Your task to perform on an android device: change the clock display to show seconds Image 0: 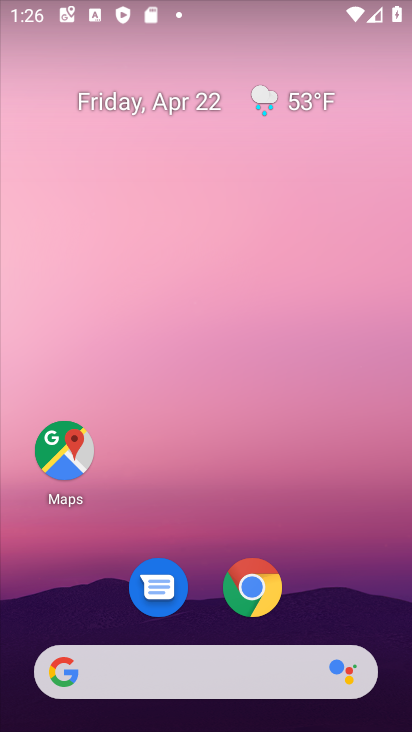
Step 0: drag from (191, 620) to (197, 257)
Your task to perform on an android device: change the clock display to show seconds Image 1: 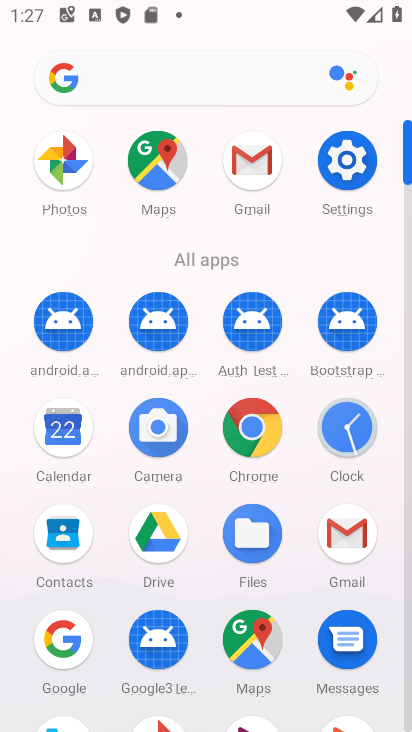
Step 1: drag from (293, 633) to (300, 349)
Your task to perform on an android device: change the clock display to show seconds Image 2: 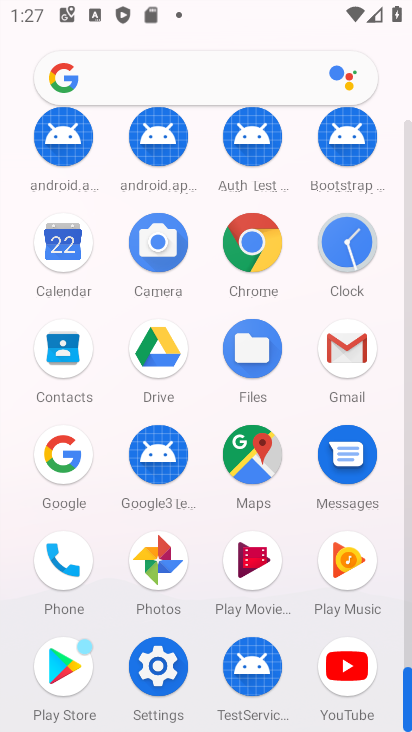
Step 2: click (339, 251)
Your task to perform on an android device: change the clock display to show seconds Image 3: 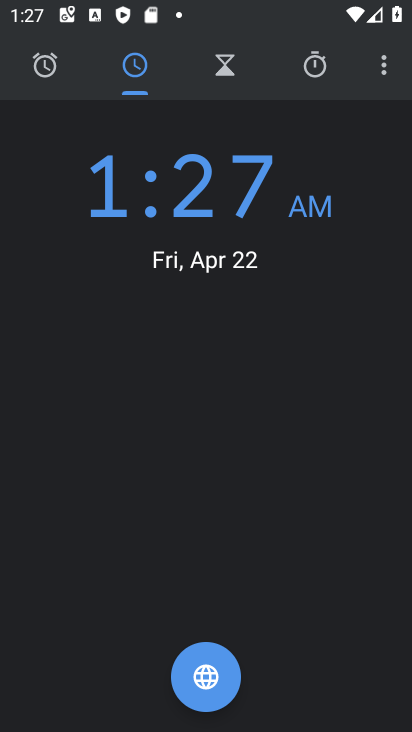
Step 3: click (382, 52)
Your task to perform on an android device: change the clock display to show seconds Image 4: 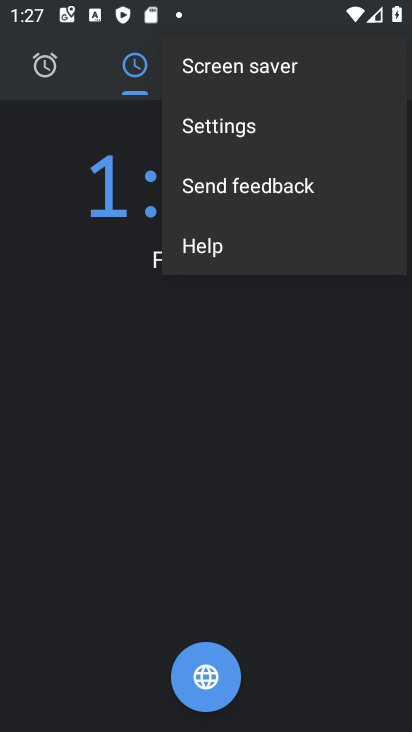
Step 4: click (258, 126)
Your task to perform on an android device: change the clock display to show seconds Image 5: 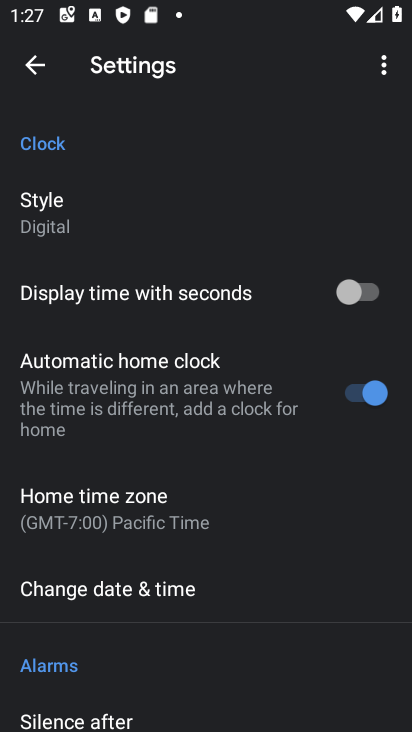
Step 5: click (362, 301)
Your task to perform on an android device: change the clock display to show seconds Image 6: 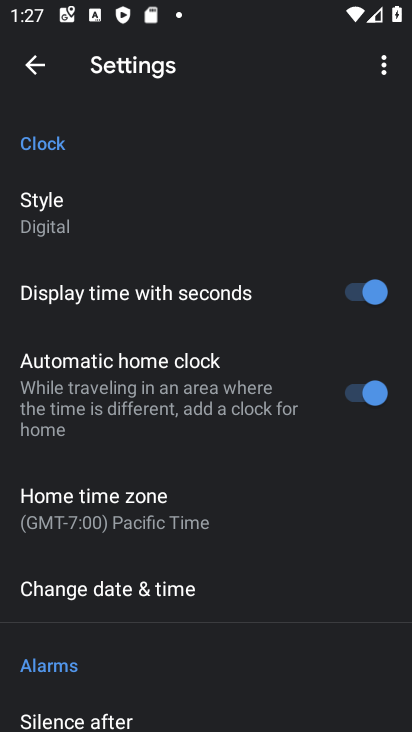
Step 6: task complete